Your task to perform on an android device: change the clock style Image 0: 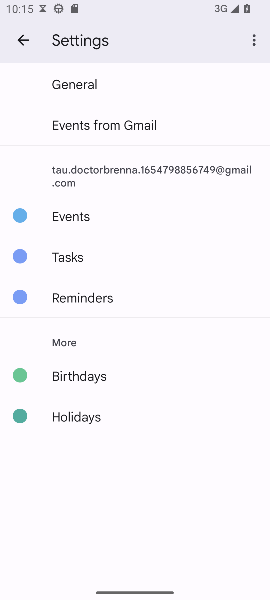
Step 0: press home button
Your task to perform on an android device: change the clock style Image 1: 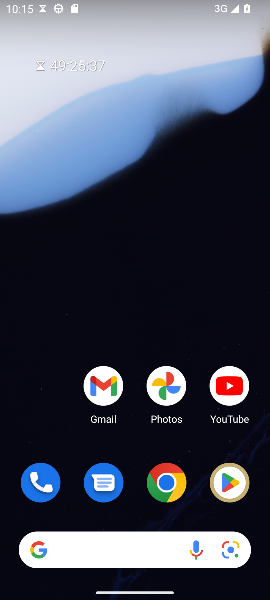
Step 1: drag from (154, 468) to (197, 19)
Your task to perform on an android device: change the clock style Image 2: 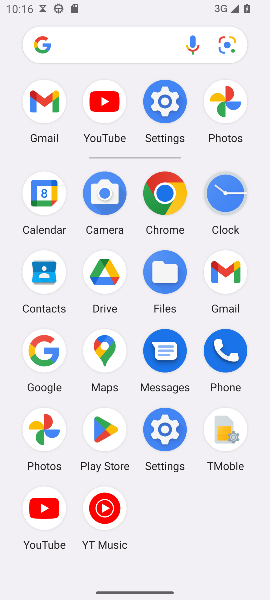
Step 2: click (231, 197)
Your task to perform on an android device: change the clock style Image 3: 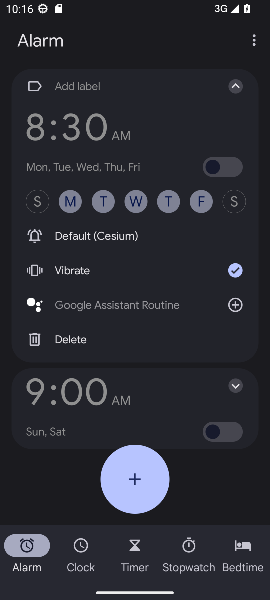
Step 3: click (255, 44)
Your task to perform on an android device: change the clock style Image 4: 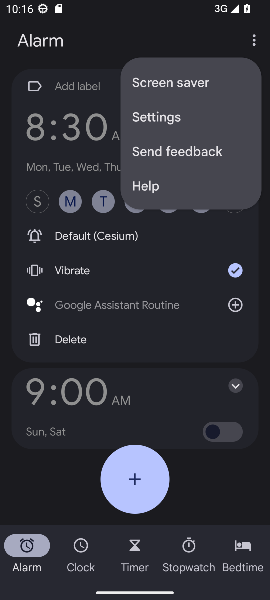
Step 4: click (186, 115)
Your task to perform on an android device: change the clock style Image 5: 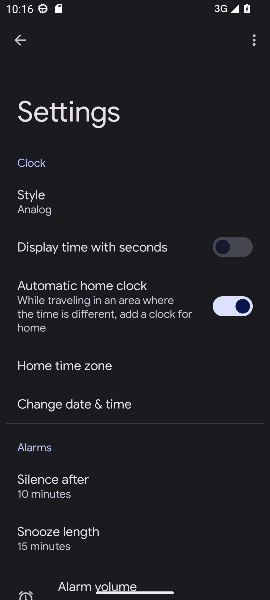
Step 5: click (25, 210)
Your task to perform on an android device: change the clock style Image 6: 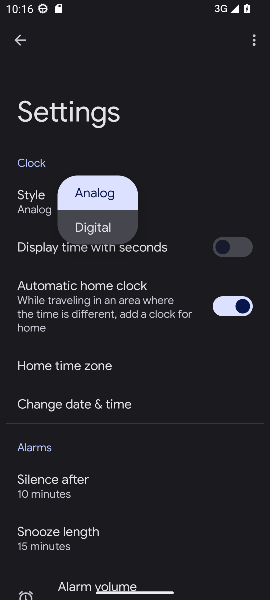
Step 6: click (102, 228)
Your task to perform on an android device: change the clock style Image 7: 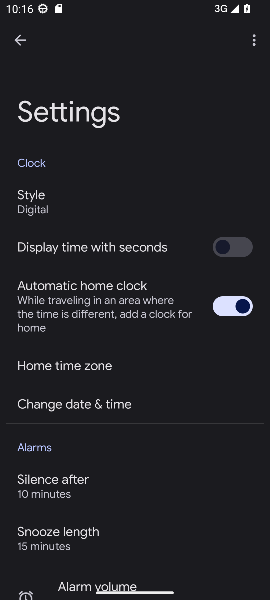
Step 7: task complete